Your task to perform on an android device: Open the map Image 0: 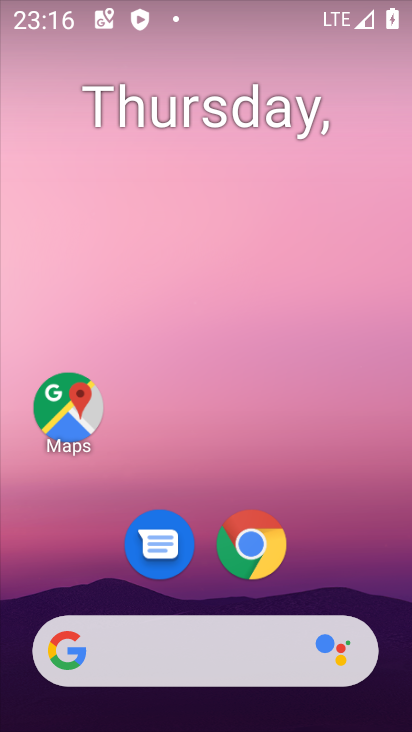
Step 0: click (40, 400)
Your task to perform on an android device: Open the map Image 1: 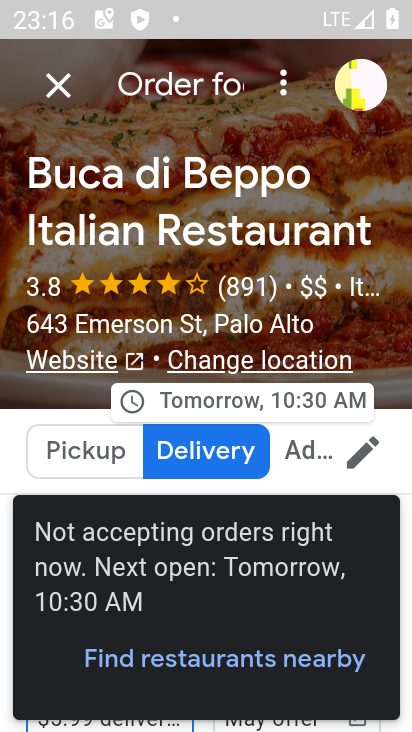
Step 1: task complete